Your task to perform on an android device: turn pop-ups off in chrome Image 0: 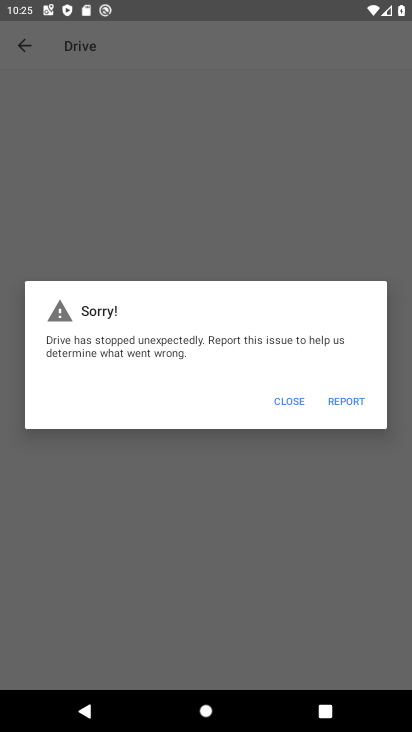
Step 0: drag from (264, 607) to (395, 439)
Your task to perform on an android device: turn pop-ups off in chrome Image 1: 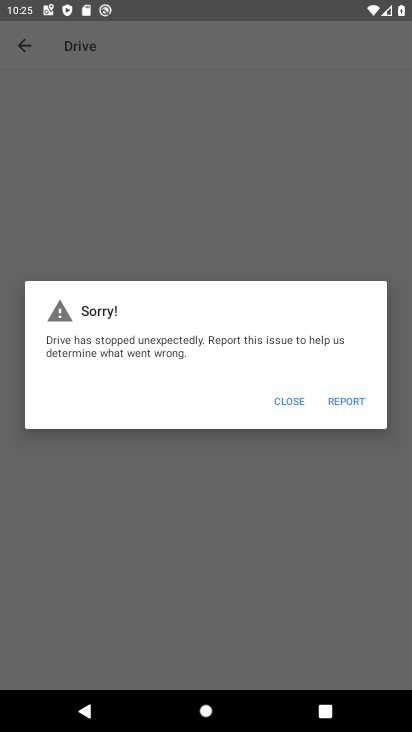
Step 1: press home button
Your task to perform on an android device: turn pop-ups off in chrome Image 2: 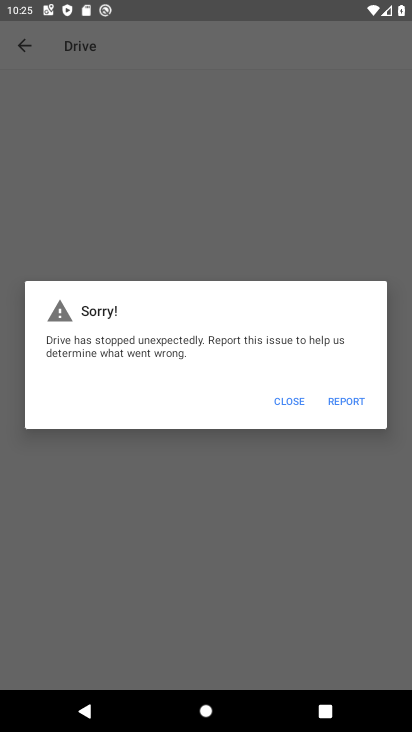
Step 2: click (395, 439)
Your task to perform on an android device: turn pop-ups off in chrome Image 3: 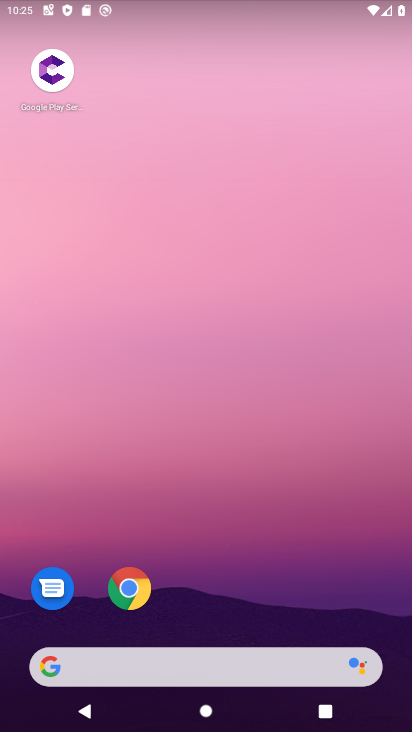
Step 3: click (138, 590)
Your task to perform on an android device: turn pop-ups off in chrome Image 4: 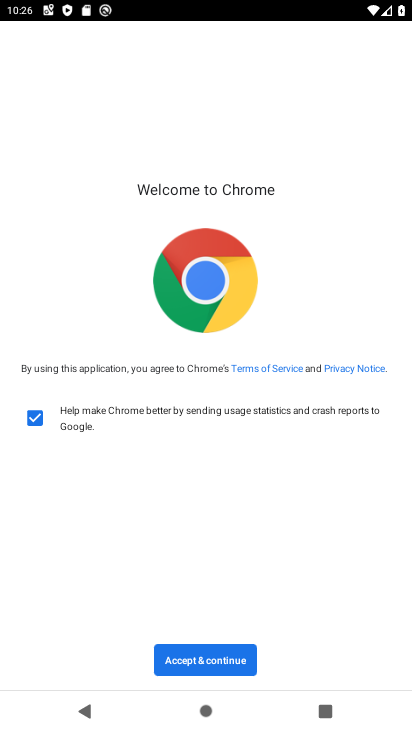
Step 4: click (214, 663)
Your task to perform on an android device: turn pop-ups off in chrome Image 5: 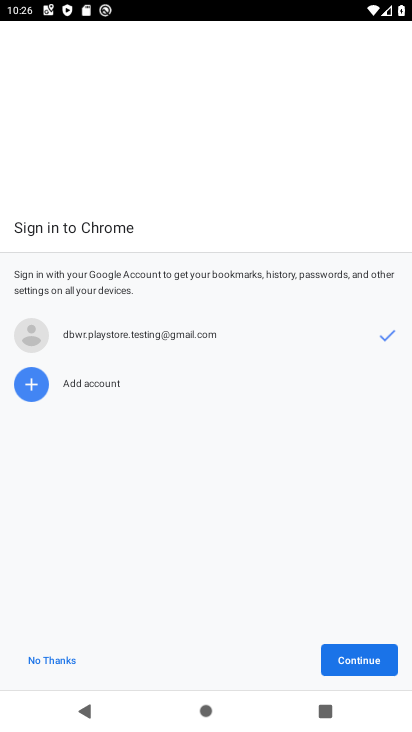
Step 5: click (382, 658)
Your task to perform on an android device: turn pop-ups off in chrome Image 6: 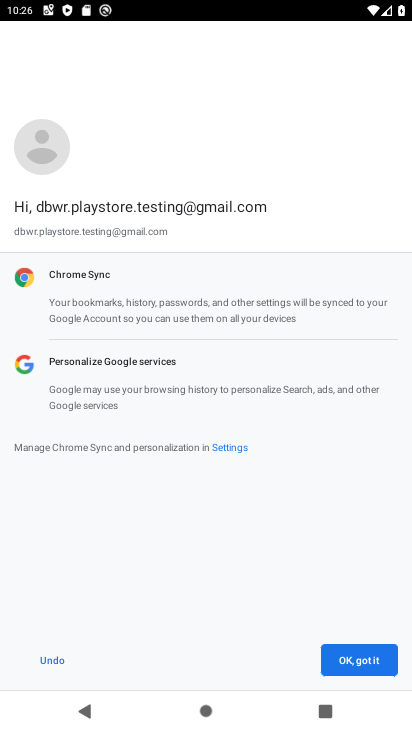
Step 6: click (382, 658)
Your task to perform on an android device: turn pop-ups off in chrome Image 7: 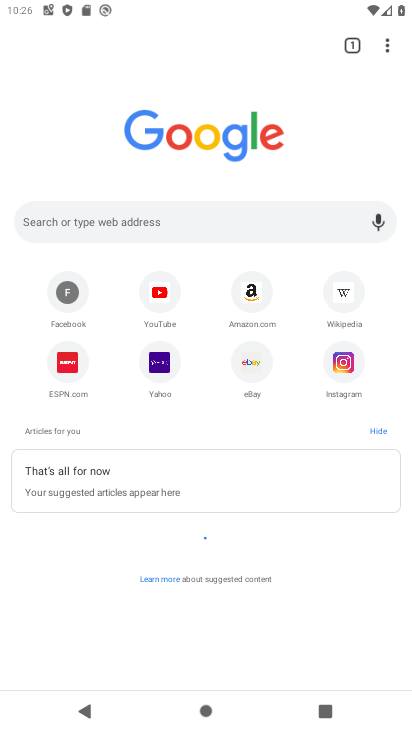
Step 7: click (382, 46)
Your task to perform on an android device: turn pop-ups off in chrome Image 8: 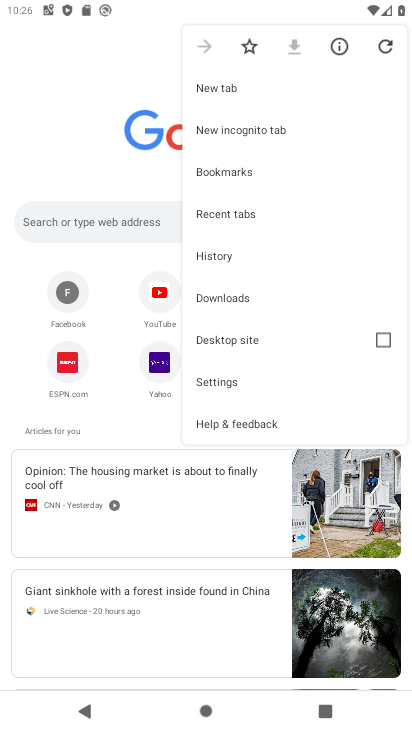
Step 8: click (235, 376)
Your task to perform on an android device: turn pop-ups off in chrome Image 9: 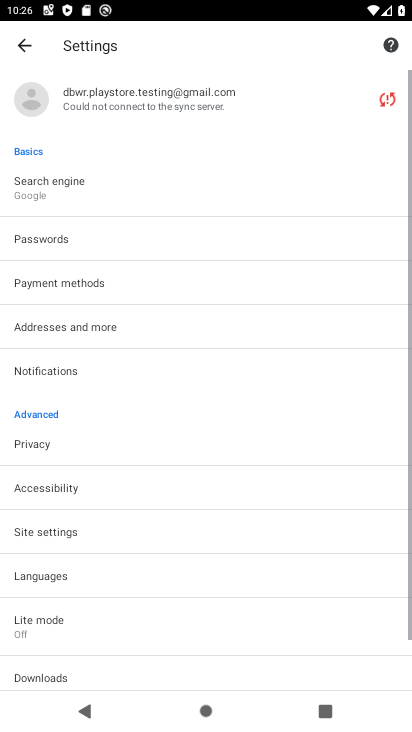
Step 9: drag from (154, 615) to (166, 405)
Your task to perform on an android device: turn pop-ups off in chrome Image 10: 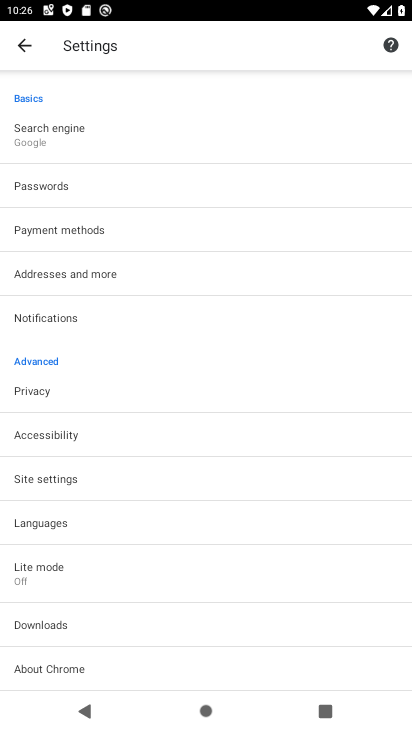
Step 10: click (80, 484)
Your task to perform on an android device: turn pop-ups off in chrome Image 11: 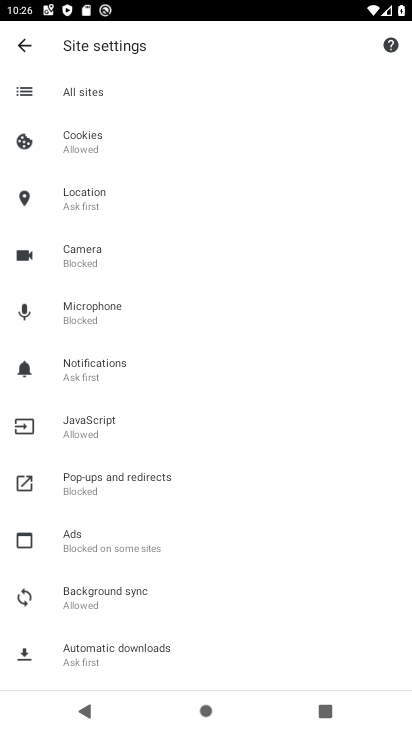
Step 11: click (145, 481)
Your task to perform on an android device: turn pop-ups off in chrome Image 12: 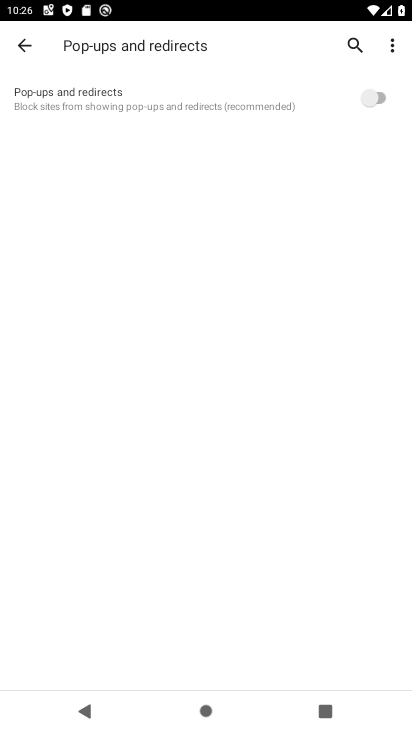
Step 12: task complete